Your task to perform on an android device: Go to Amazon Image 0: 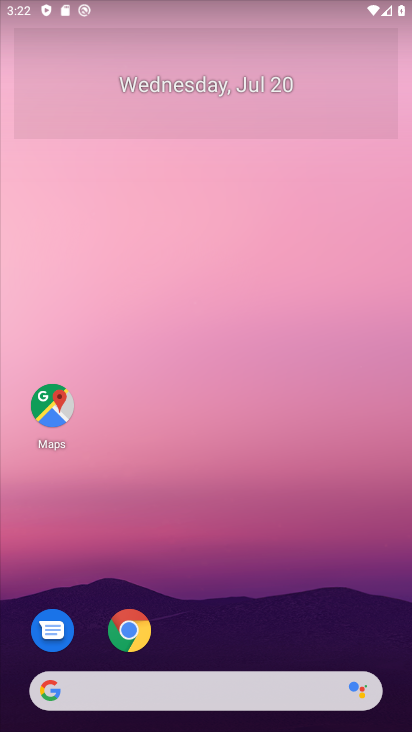
Step 0: press home button
Your task to perform on an android device: Go to Amazon Image 1: 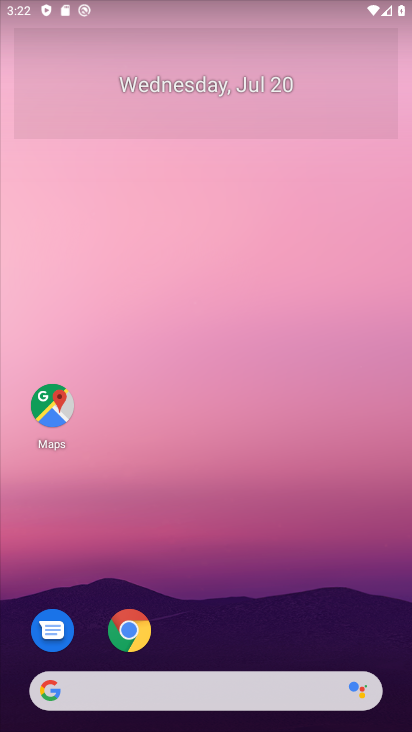
Step 1: click (52, 687)
Your task to perform on an android device: Go to Amazon Image 2: 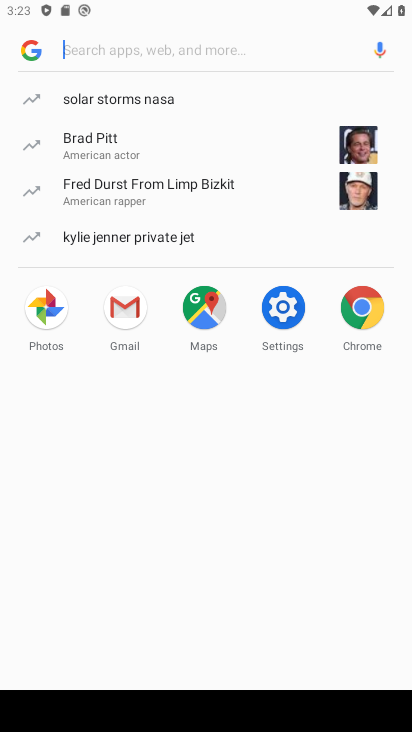
Step 2: type " Amazon"
Your task to perform on an android device: Go to Amazon Image 3: 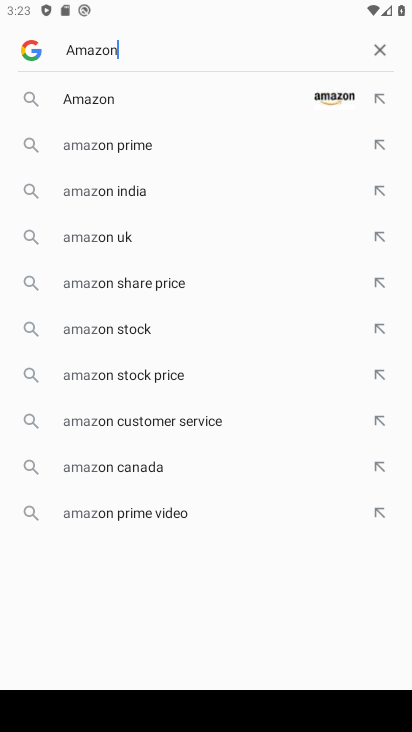
Step 3: press enter
Your task to perform on an android device: Go to Amazon Image 4: 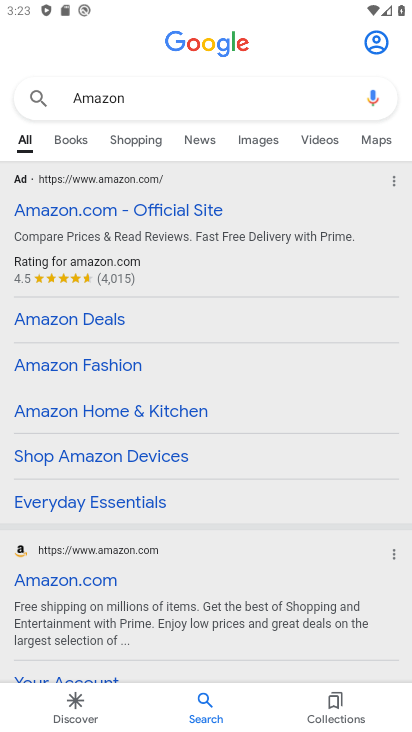
Step 4: click (80, 218)
Your task to perform on an android device: Go to Amazon Image 5: 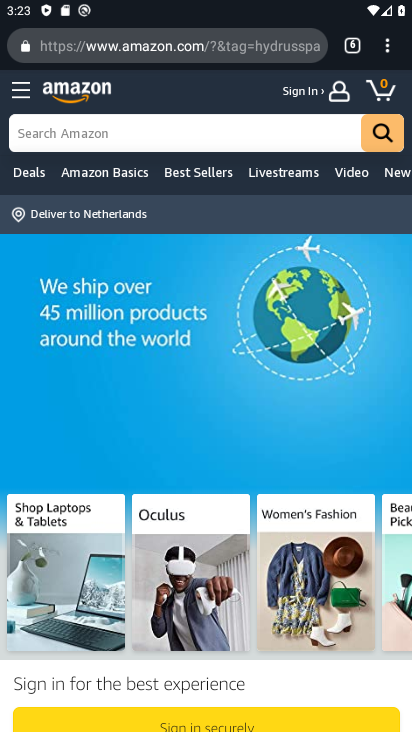
Step 5: task complete